Your task to perform on an android device: What's on my calendar tomorrow? Image 0: 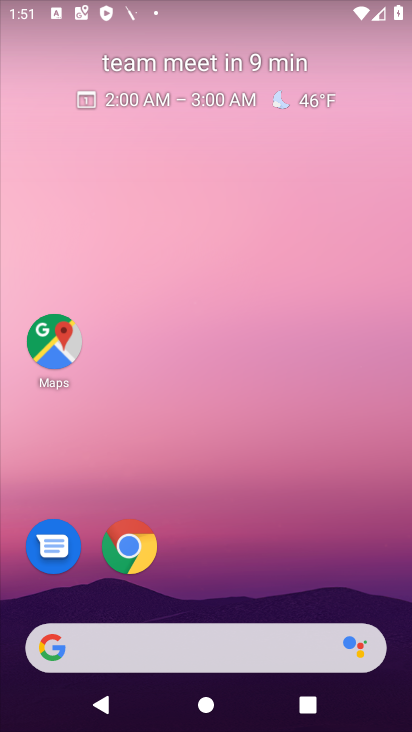
Step 0: drag from (399, 657) to (347, 110)
Your task to perform on an android device: What's on my calendar tomorrow? Image 1: 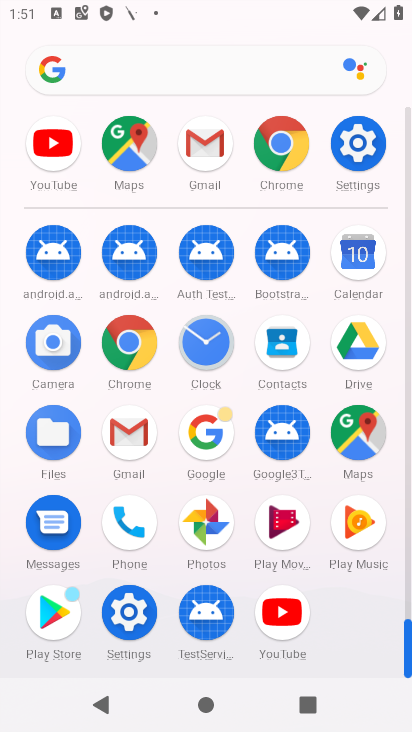
Step 1: click (359, 252)
Your task to perform on an android device: What's on my calendar tomorrow? Image 2: 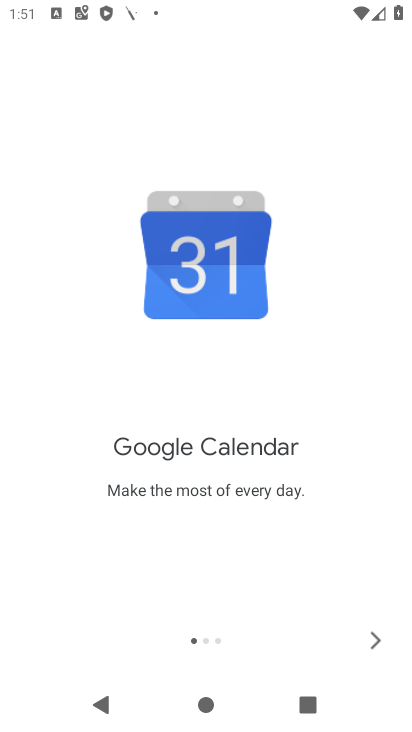
Step 2: click (372, 637)
Your task to perform on an android device: What's on my calendar tomorrow? Image 3: 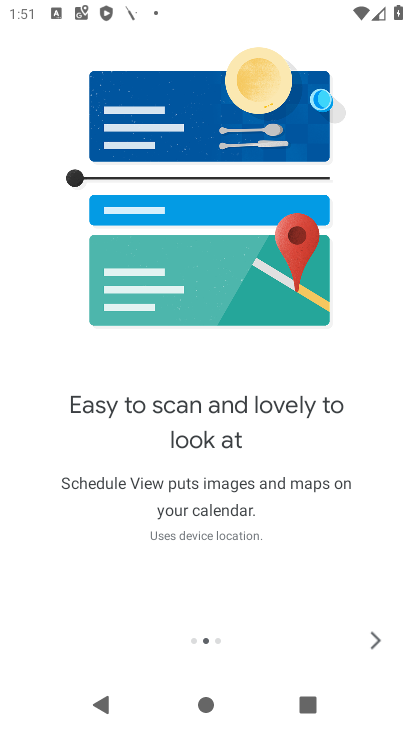
Step 3: click (372, 637)
Your task to perform on an android device: What's on my calendar tomorrow? Image 4: 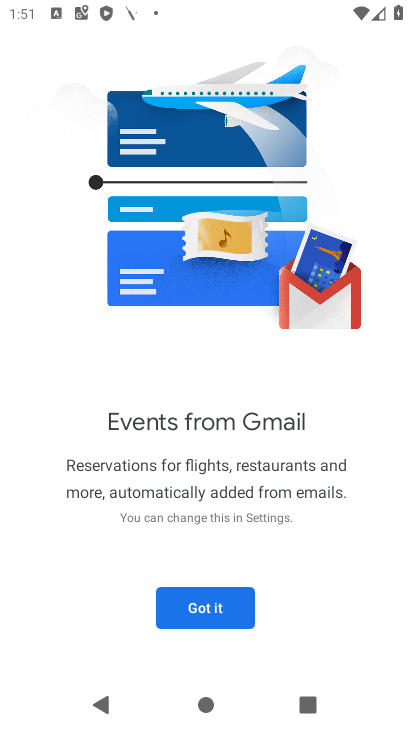
Step 4: click (192, 607)
Your task to perform on an android device: What's on my calendar tomorrow? Image 5: 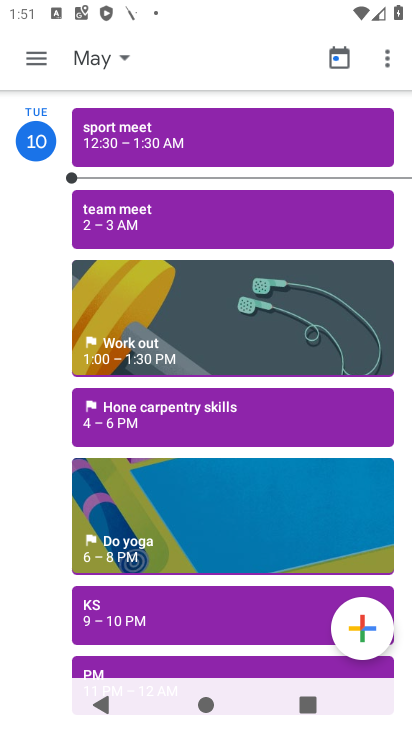
Step 5: click (32, 52)
Your task to perform on an android device: What's on my calendar tomorrow? Image 6: 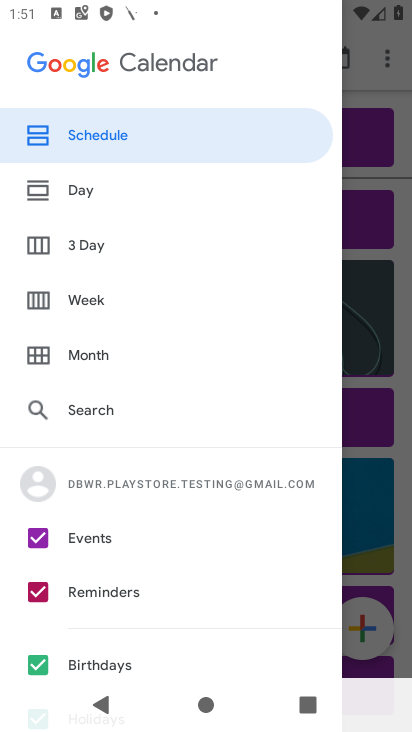
Step 6: click (78, 189)
Your task to perform on an android device: What's on my calendar tomorrow? Image 7: 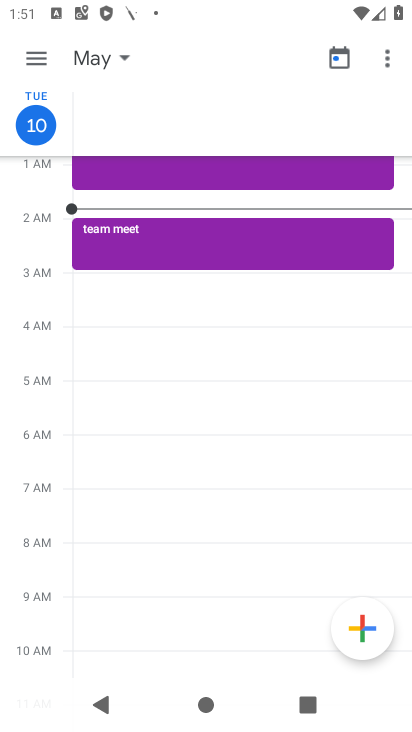
Step 7: click (119, 57)
Your task to perform on an android device: What's on my calendar tomorrow? Image 8: 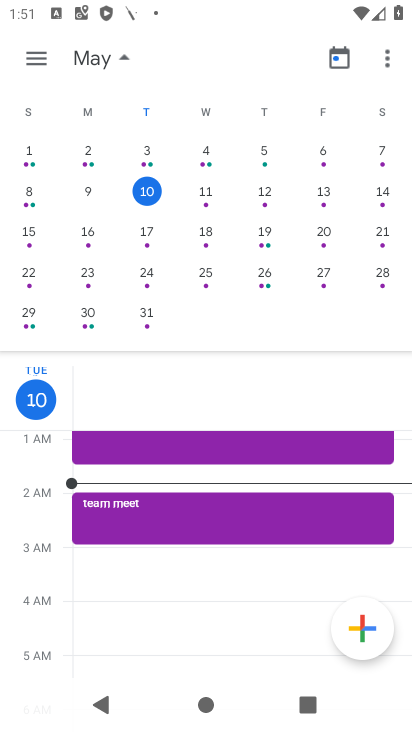
Step 8: click (209, 196)
Your task to perform on an android device: What's on my calendar tomorrow? Image 9: 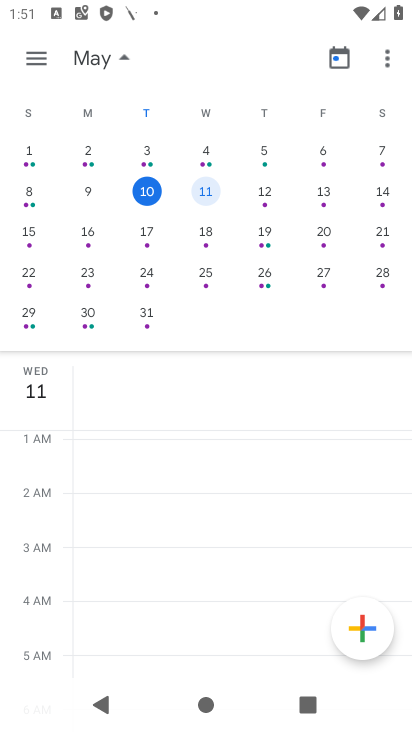
Step 9: task complete